Your task to perform on an android device: Go to calendar. Show me events next week Image 0: 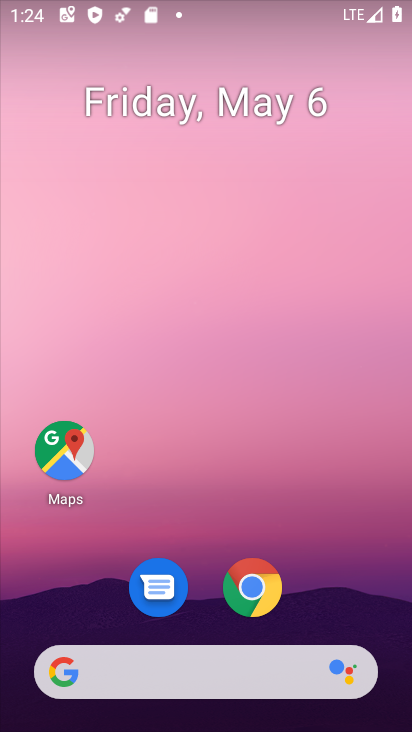
Step 0: drag from (304, 427) to (296, 115)
Your task to perform on an android device: Go to calendar. Show me events next week Image 1: 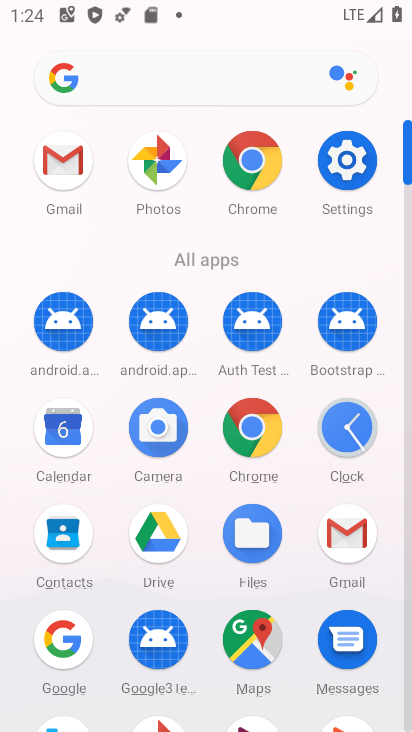
Step 1: click (47, 443)
Your task to perform on an android device: Go to calendar. Show me events next week Image 2: 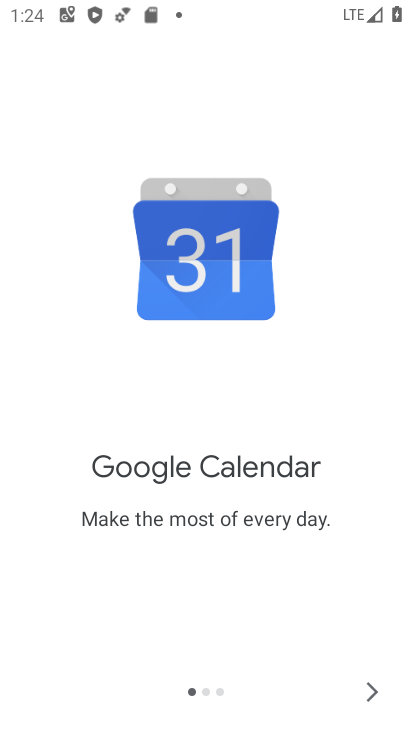
Step 2: click (376, 697)
Your task to perform on an android device: Go to calendar. Show me events next week Image 3: 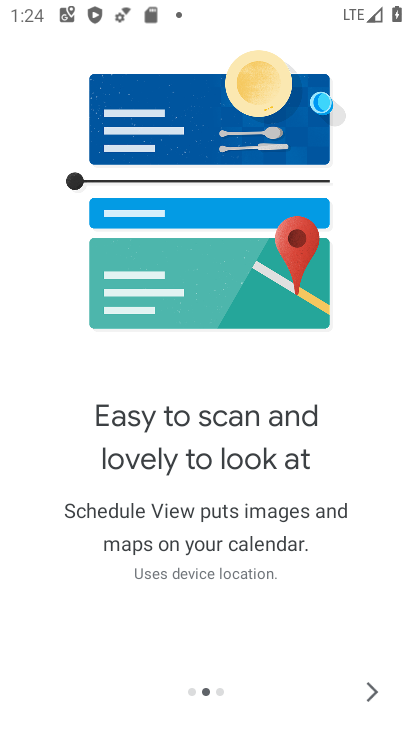
Step 3: click (371, 695)
Your task to perform on an android device: Go to calendar. Show me events next week Image 4: 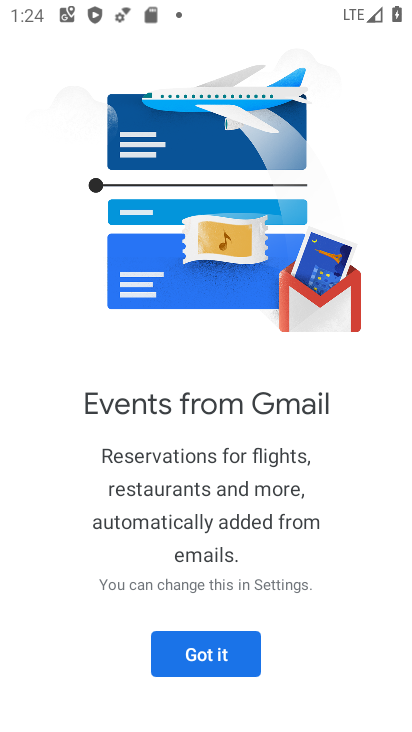
Step 4: click (371, 695)
Your task to perform on an android device: Go to calendar. Show me events next week Image 5: 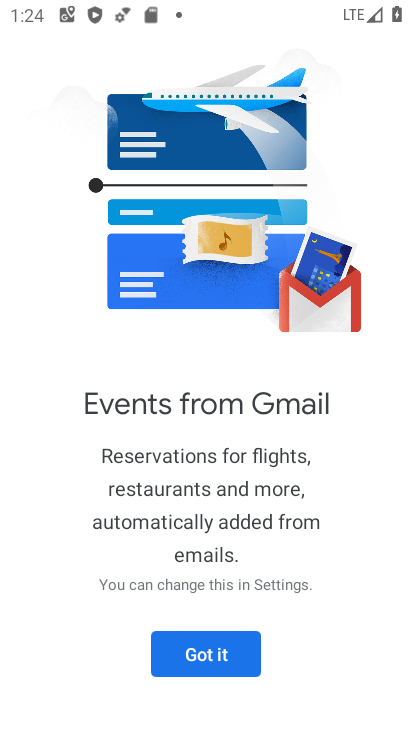
Step 5: click (230, 664)
Your task to perform on an android device: Go to calendar. Show me events next week Image 6: 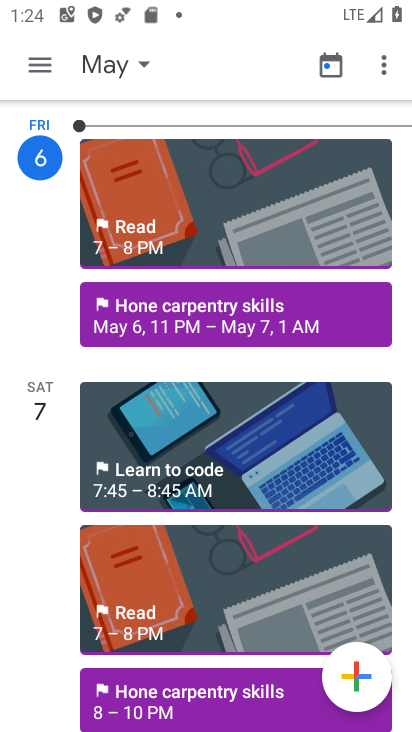
Step 6: click (104, 65)
Your task to perform on an android device: Go to calendar. Show me events next week Image 7: 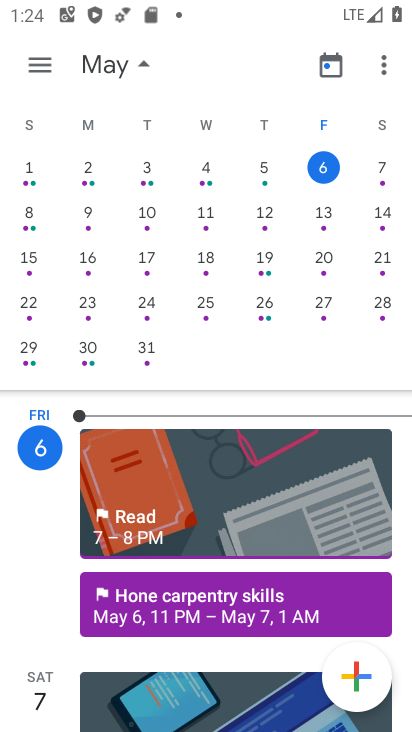
Step 7: click (32, 219)
Your task to perform on an android device: Go to calendar. Show me events next week Image 8: 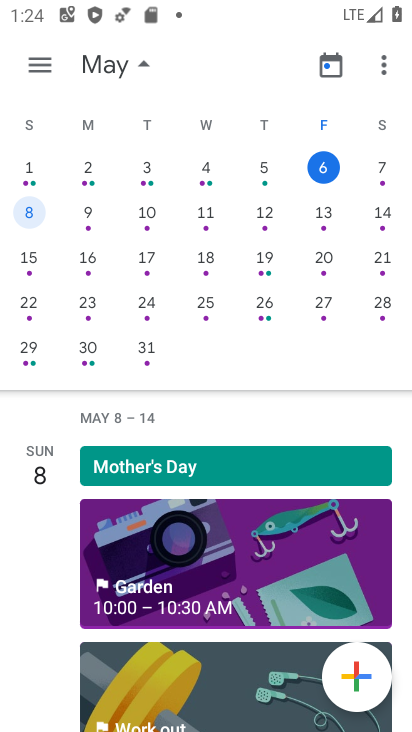
Step 8: click (88, 221)
Your task to perform on an android device: Go to calendar. Show me events next week Image 9: 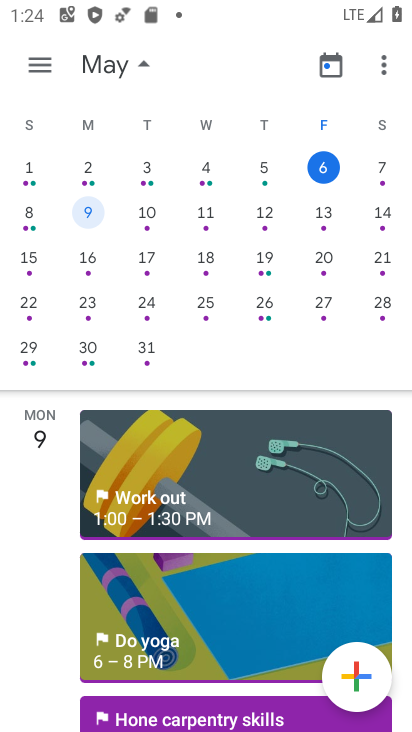
Step 9: click (155, 223)
Your task to perform on an android device: Go to calendar. Show me events next week Image 10: 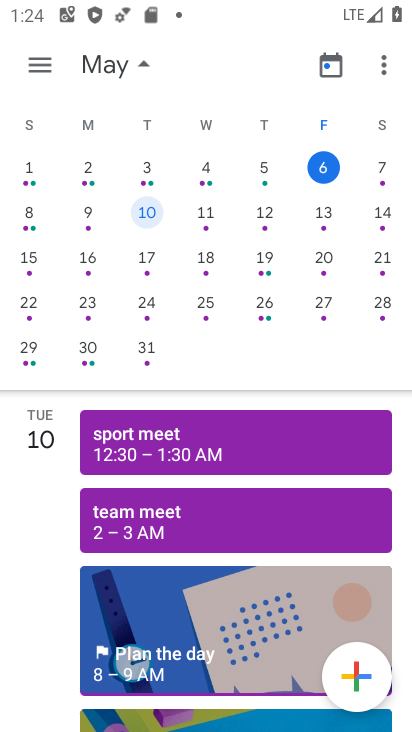
Step 10: click (207, 223)
Your task to perform on an android device: Go to calendar. Show me events next week Image 11: 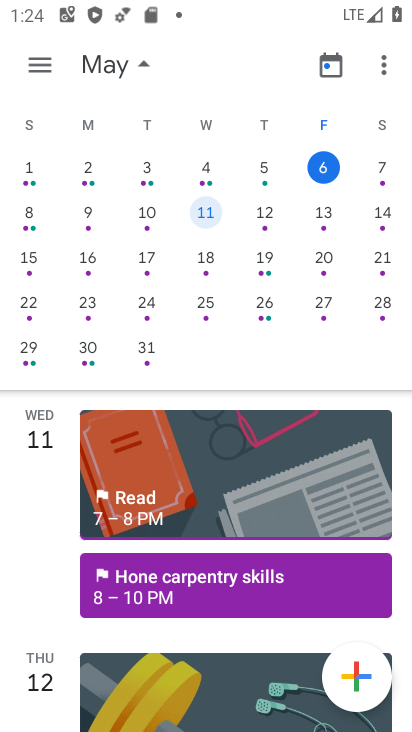
Step 11: click (274, 225)
Your task to perform on an android device: Go to calendar. Show me events next week Image 12: 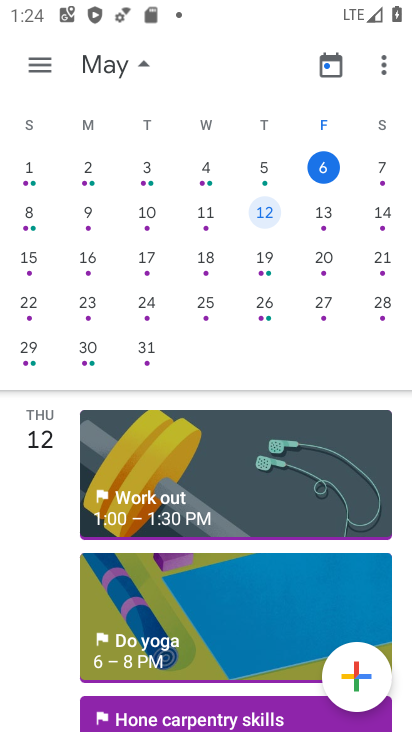
Step 12: click (325, 231)
Your task to perform on an android device: Go to calendar. Show me events next week Image 13: 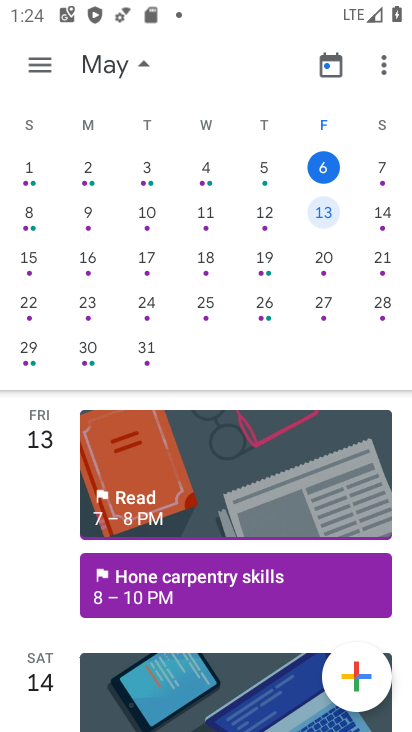
Step 13: click (392, 227)
Your task to perform on an android device: Go to calendar. Show me events next week Image 14: 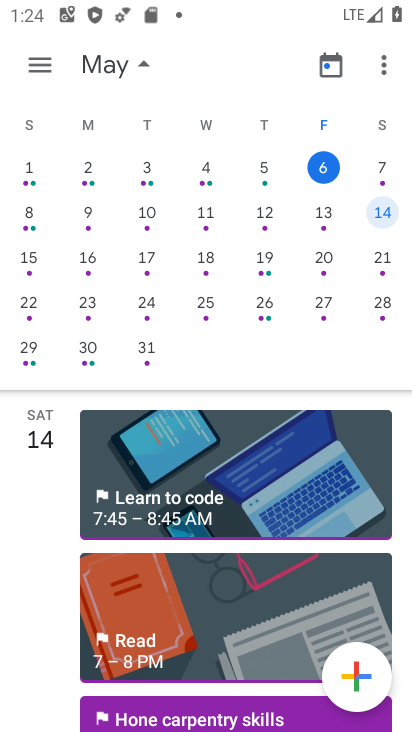
Step 14: task complete